Your task to perform on an android device: add a contact Image 0: 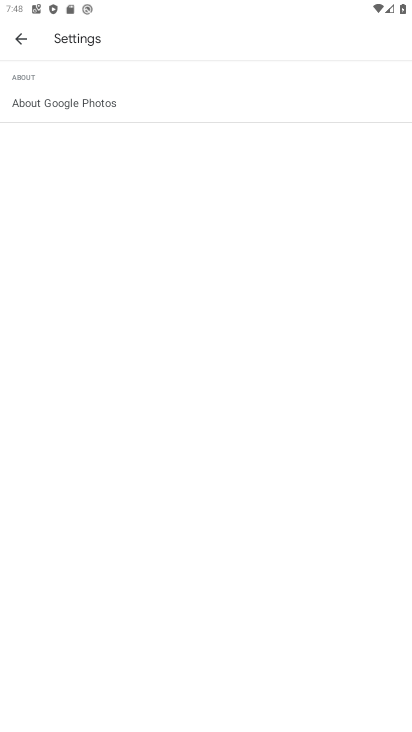
Step 0: click (24, 36)
Your task to perform on an android device: add a contact Image 1: 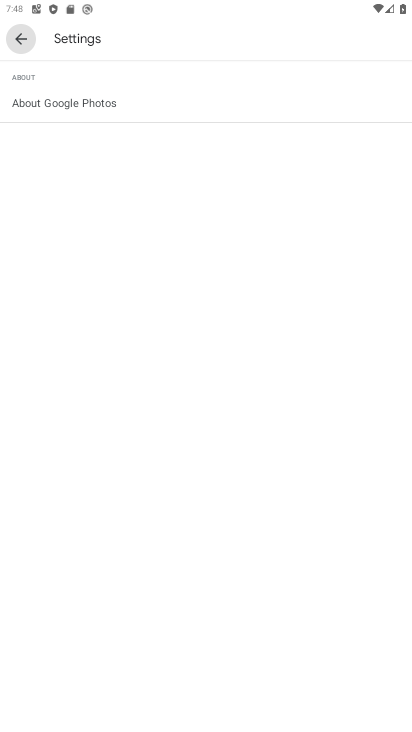
Step 1: click (11, 52)
Your task to perform on an android device: add a contact Image 2: 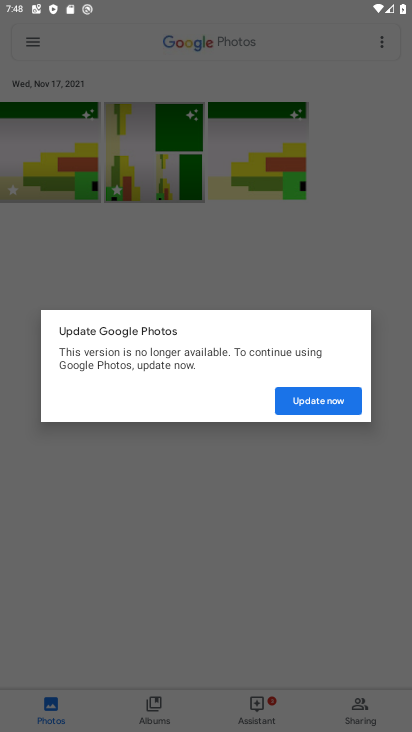
Step 2: press home button
Your task to perform on an android device: add a contact Image 3: 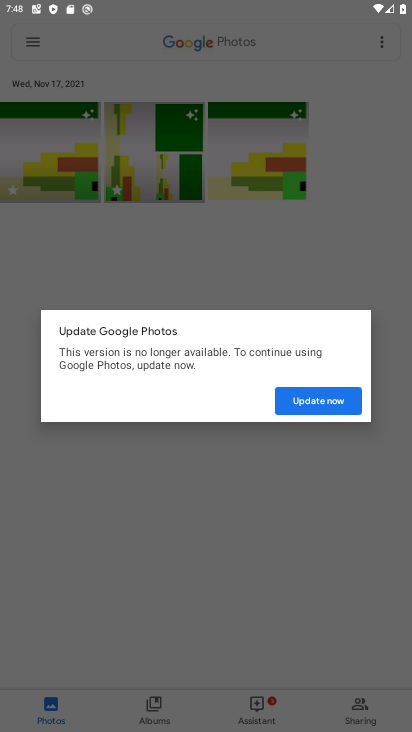
Step 3: press home button
Your task to perform on an android device: add a contact Image 4: 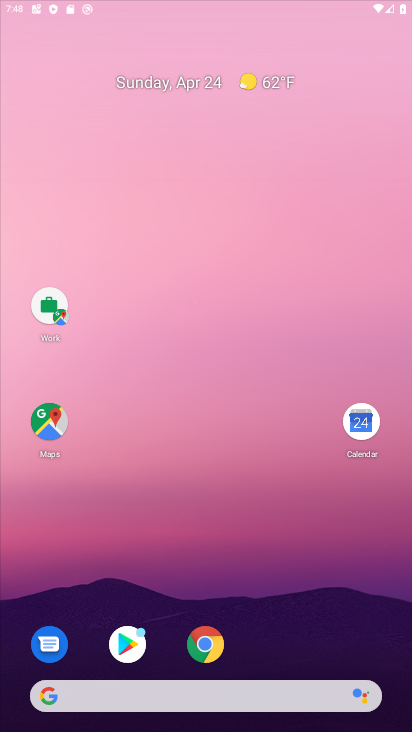
Step 4: press home button
Your task to perform on an android device: add a contact Image 5: 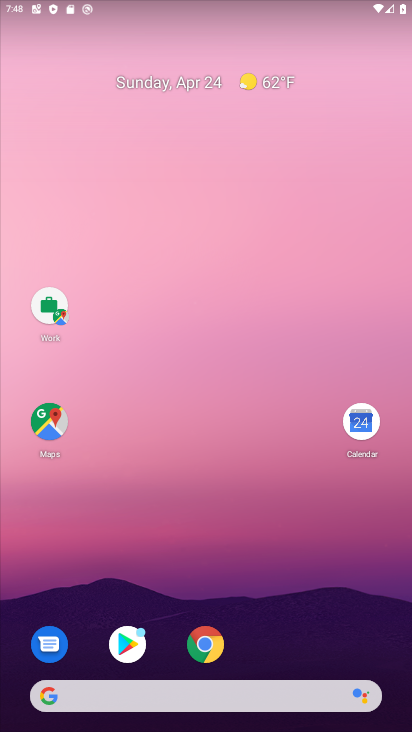
Step 5: drag from (304, 643) to (239, 9)
Your task to perform on an android device: add a contact Image 6: 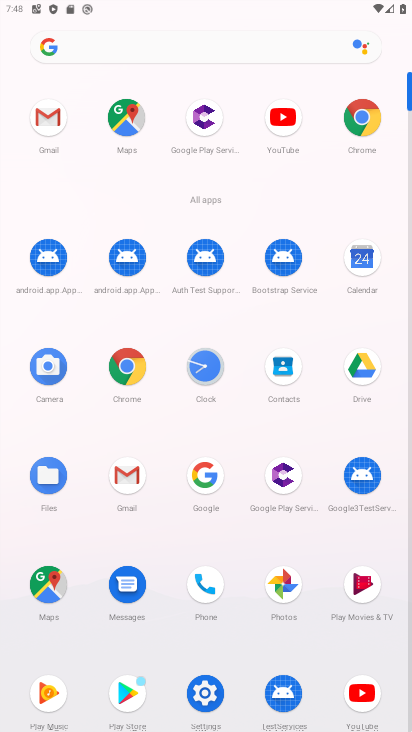
Step 6: click (280, 354)
Your task to perform on an android device: add a contact Image 7: 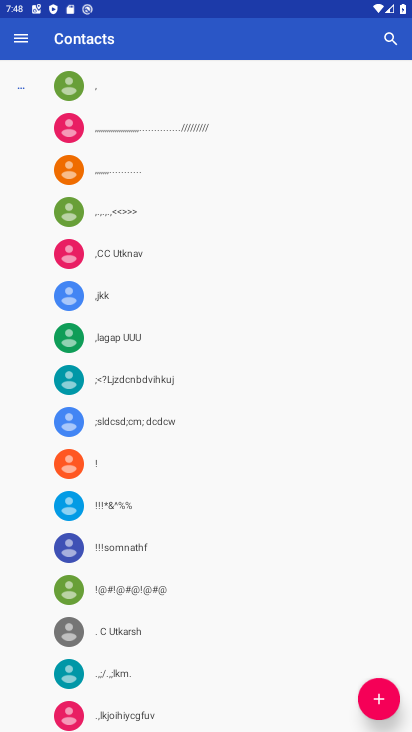
Step 7: click (378, 704)
Your task to perform on an android device: add a contact Image 8: 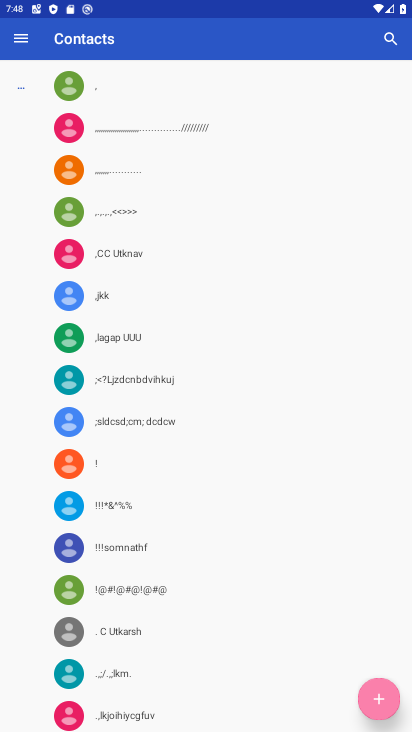
Step 8: click (378, 704)
Your task to perform on an android device: add a contact Image 9: 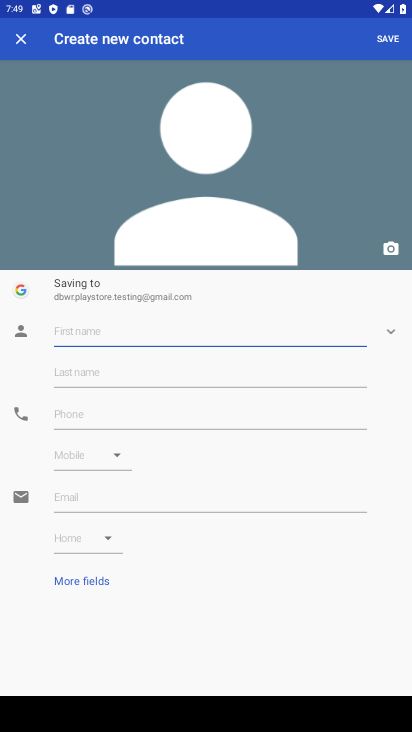
Step 9: type "namee"
Your task to perform on an android device: add a contact Image 10: 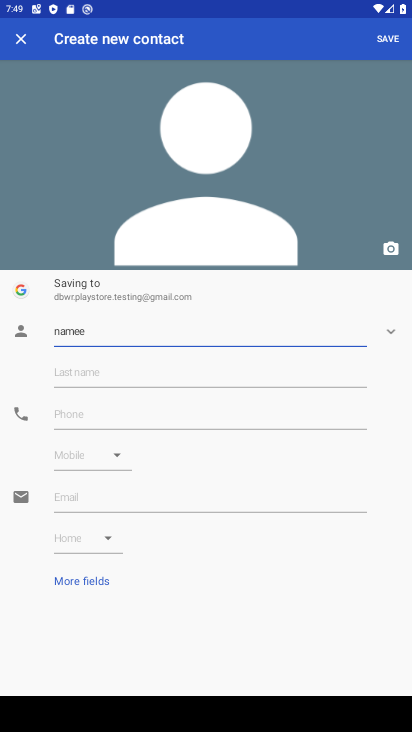
Step 10: click (74, 421)
Your task to perform on an android device: add a contact Image 11: 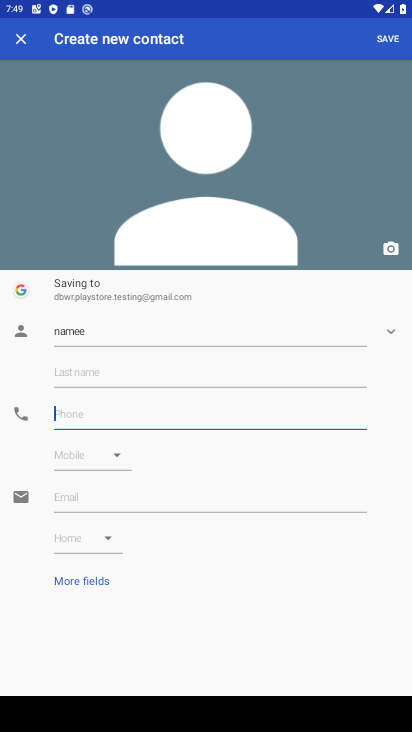
Step 11: type "8976568756"
Your task to perform on an android device: add a contact Image 12: 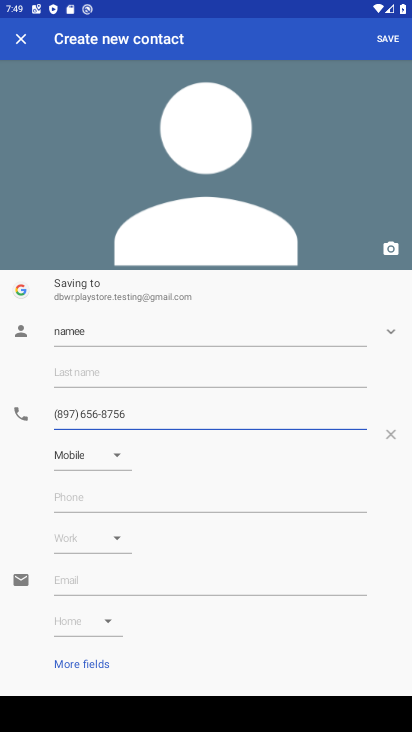
Step 12: click (387, 46)
Your task to perform on an android device: add a contact Image 13: 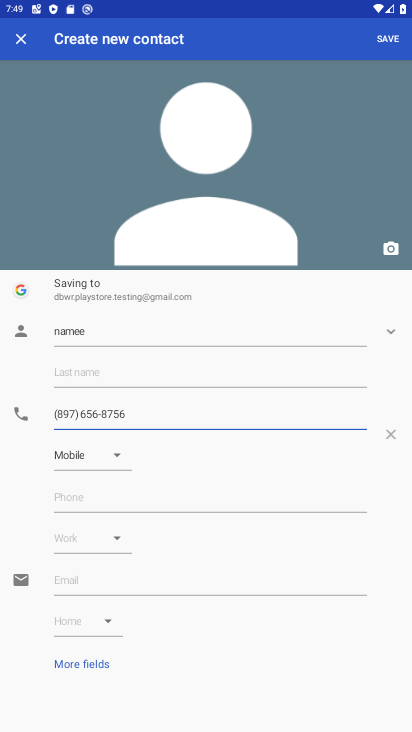
Step 13: click (387, 46)
Your task to perform on an android device: add a contact Image 14: 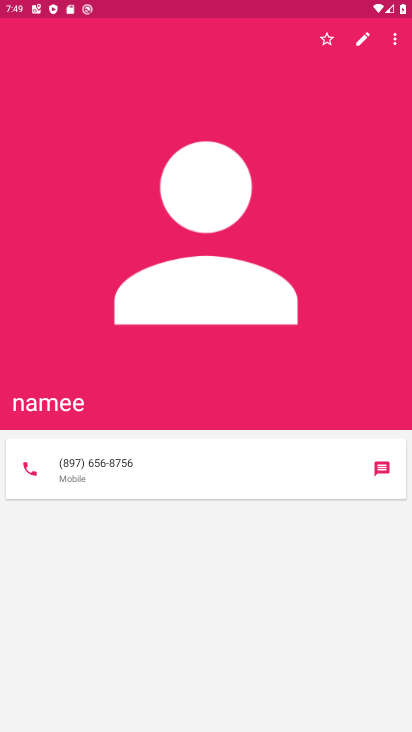
Step 14: task complete